Your task to perform on an android device: delete the emails in spam in the gmail app Image 0: 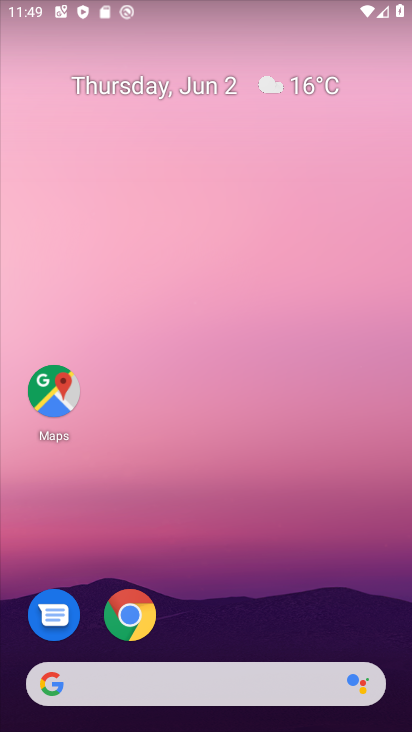
Step 0: drag from (232, 585) to (240, 298)
Your task to perform on an android device: delete the emails in spam in the gmail app Image 1: 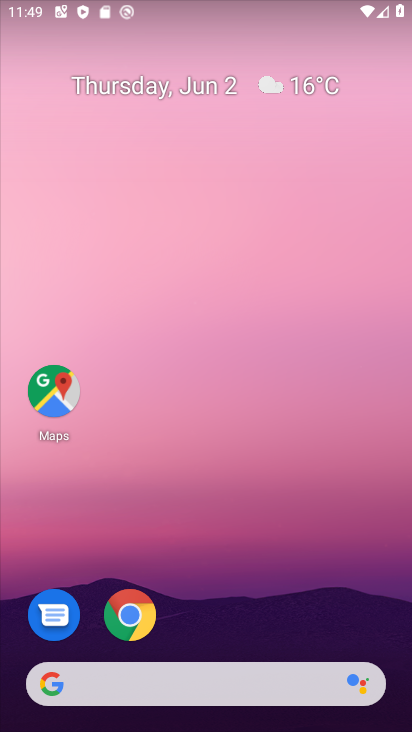
Step 1: drag from (240, 572) to (284, 161)
Your task to perform on an android device: delete the emails in spam in the gmail app Image 2: 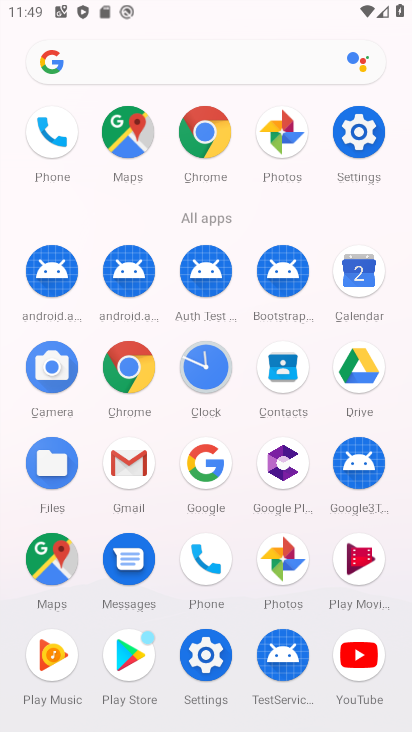
Step 2: click (117, 464)
Your task to perform on an android device: delete the emails in spam in the gmail app Image 3: 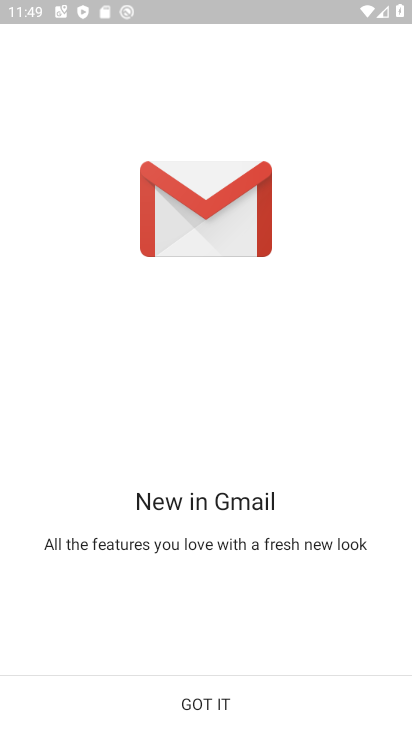
Step 3: click (192, 695)
Your task to perform on an android device: delete the emails in spam in the gmail app Image 4: 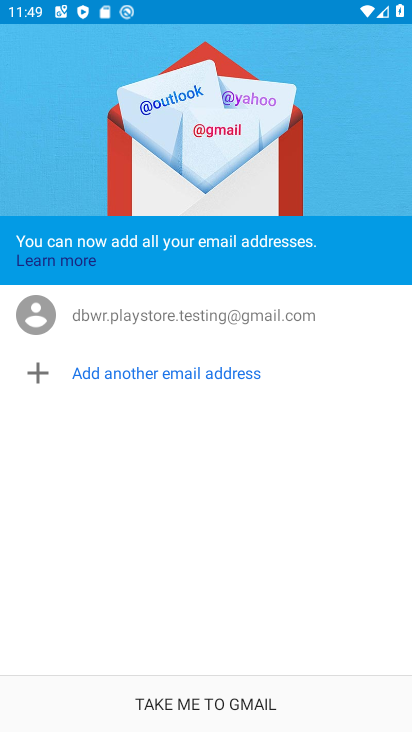
Step 4: click (193, 694)
Your task to perform on an android device: delete the emails in spam in the gmail app Image 5: 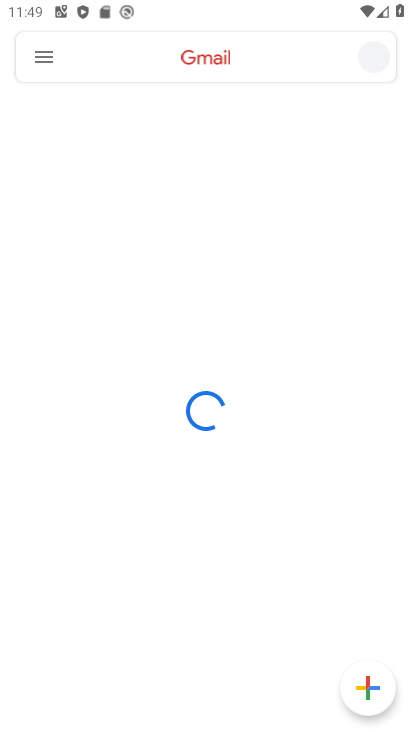
Step 5: click (48, 53)
Your task to perform on an android device: delete the emails in spam in the gmail app Image 6: 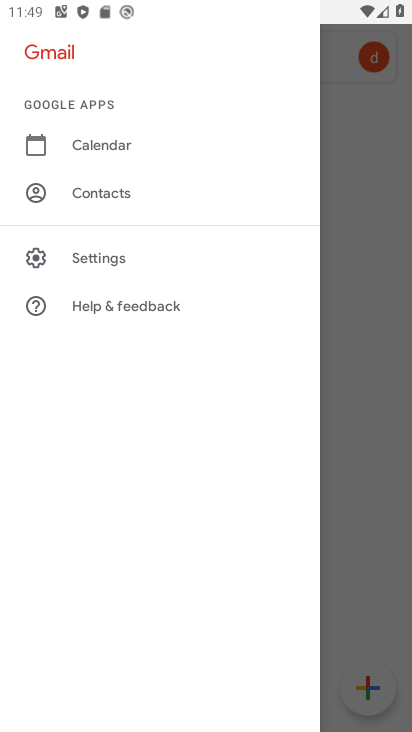
Step 6: click (89, 232)
Your task to perform on an android device: delete the emails in spam in the gmail app Image 7: 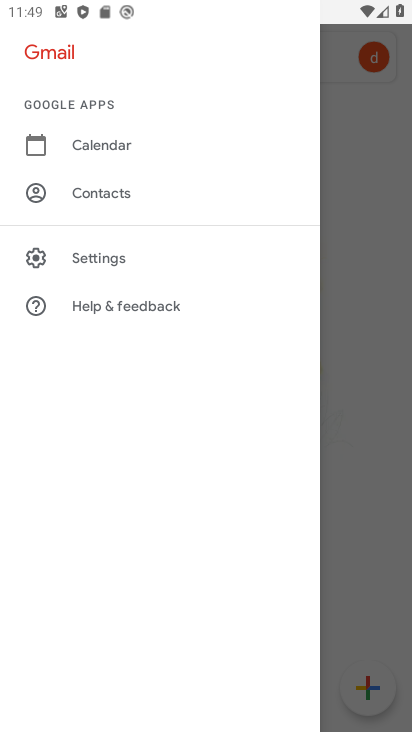
Step 7: click (93, 247)
Your task to perform on an android device: delete the emails in spam in the gmail app Image 8: 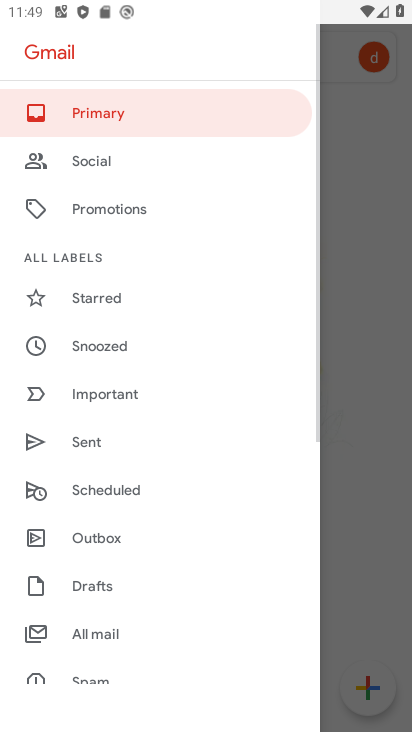
Step 8: drag from (96, 641) to (136, 359)
Your task to perform on an android device: delete the emails in spam in the gmail app Image 9: 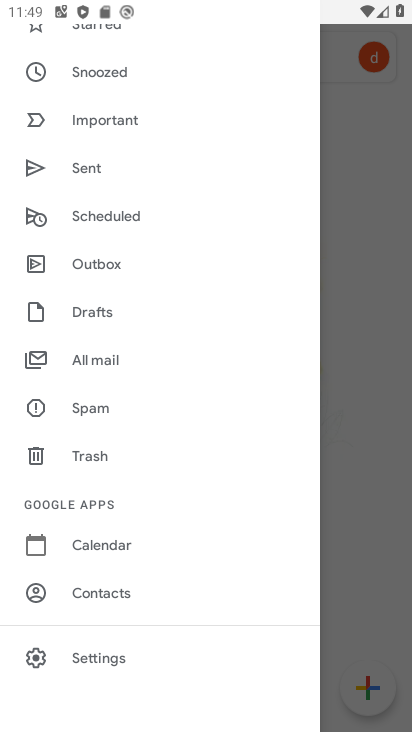
Step 9: click (83, 395)
Your task to perform on an android device: delete the emails in spam in the gmail app Image 10: 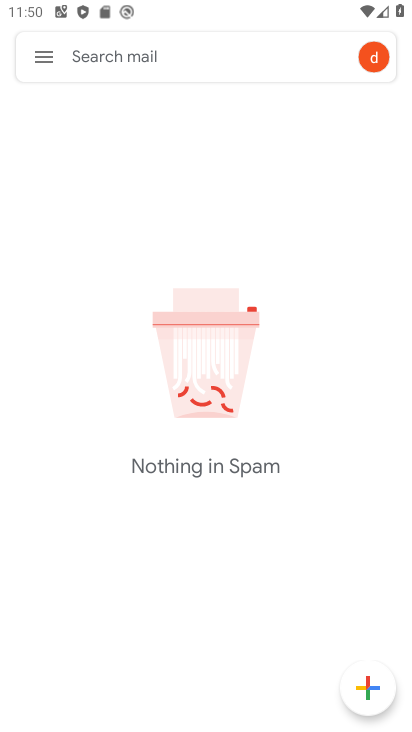
Step 10: task complete